Your task to perform on an android device: turn off location history Image 0: 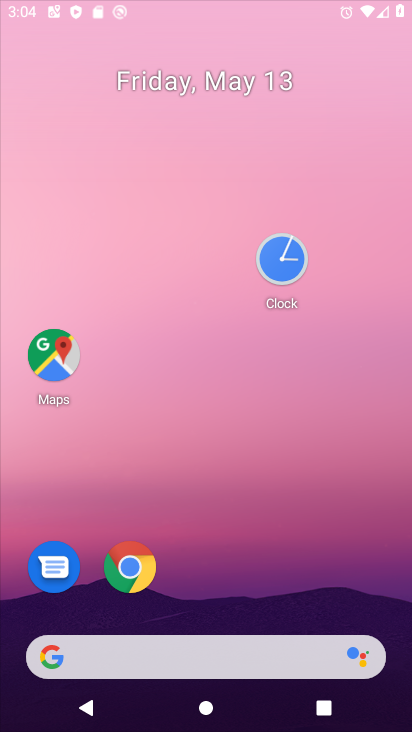
Step 0: click (251, 162)
Your task to perform on an android device: turn off location history Image 1: 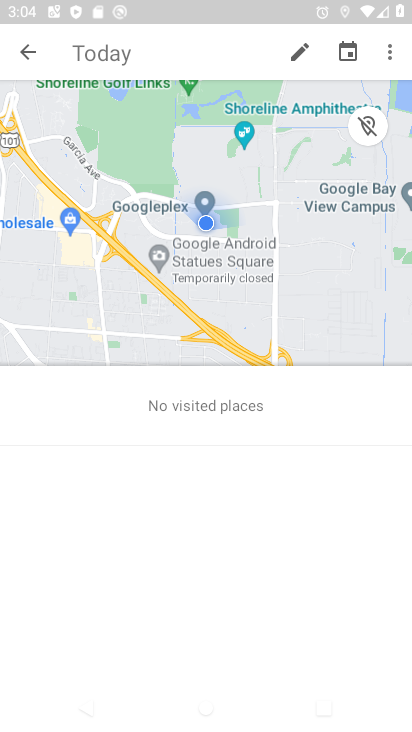
Step 1: press home button
Your task to perform on an android device: turn off location history Image 2: 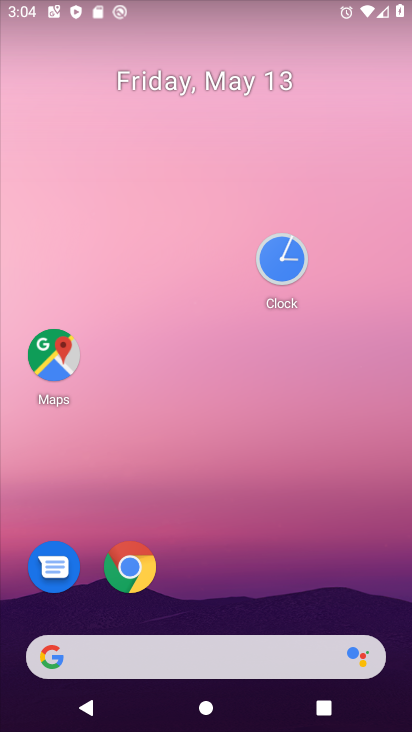
Step 2: drag from (221, 565) to (276, 83)
Your task to perform on an android device: turn off location history Image 3: 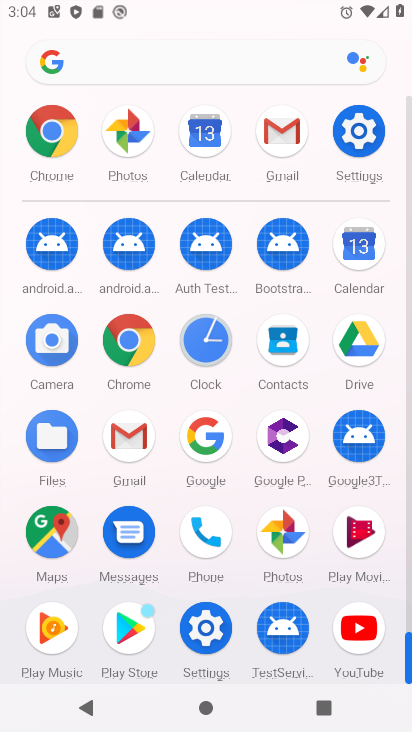
Step 3: click (368, 165)
Your task to perform on an android device: turn off location history Image 4: 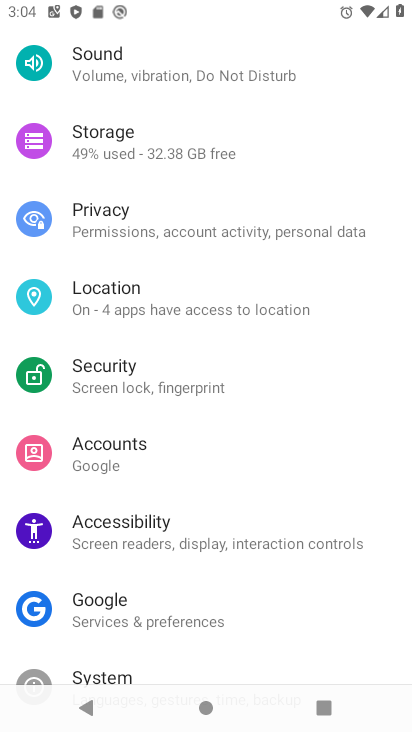
Step 4: drag from (176, 580) to (189, 432)
Your task to perform on an android device: turn off location history Image 5: 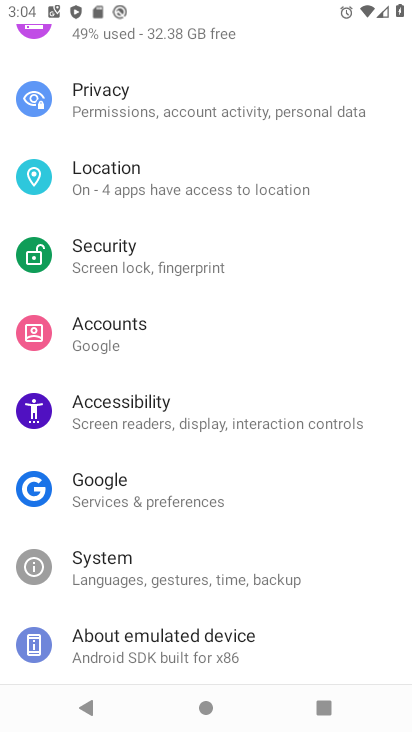
Step 5: click (189, 190)
Your task to perform on an android device: turn off location history Image 6: 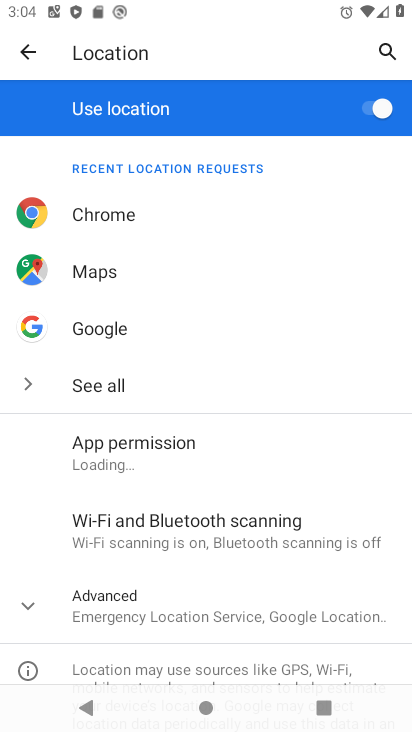
Step 6: click (182, 585)
Your task to perform on an android device: turn off location history Image 7: 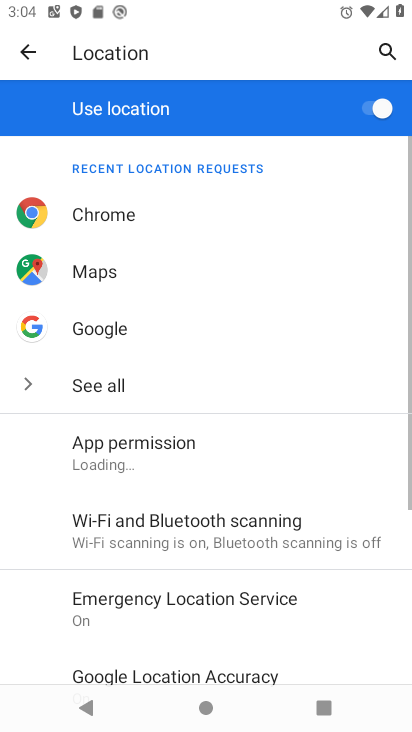
Step 7: drag from (194, 574) to (195, 359)
Your task to perform on an android device: turn off location history Image 8: 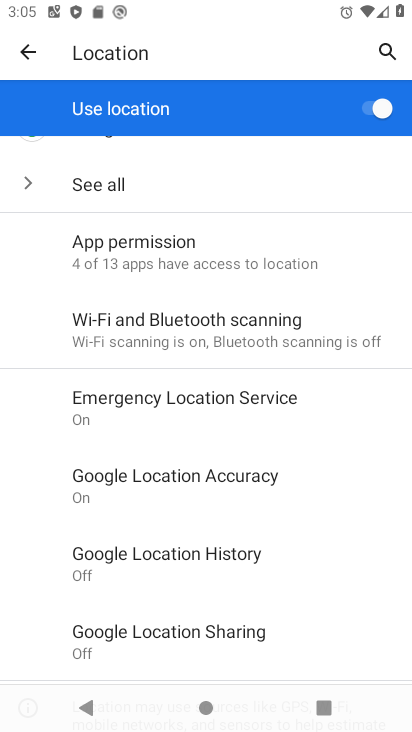
Step 8: click (238, 560)
Your task to perform on an android device: turn off location history Image 9: 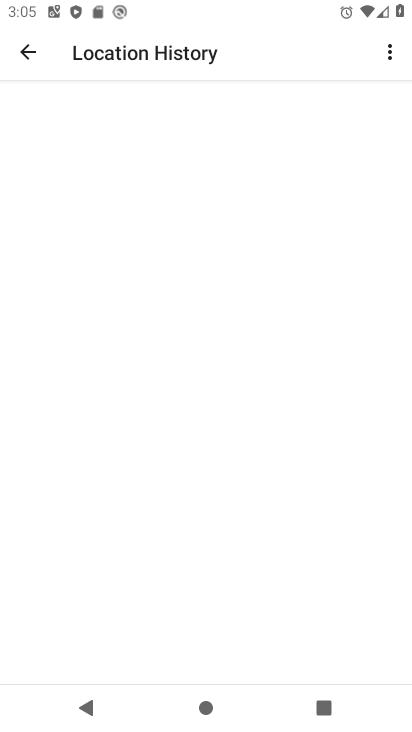
Step 9: task complete